Your task to perform on an android device: Search for duracell triple a on amazon.com, select the first entry, and add it to the cart. Image 0: 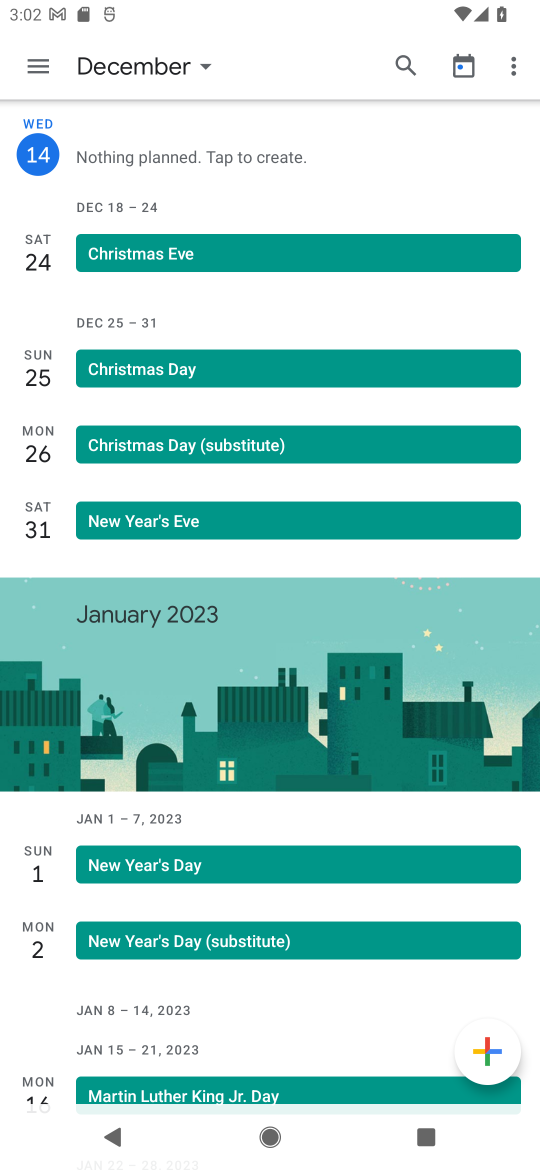
Step 0: press home button
Your task to perform on an android device: Search for duracell triple a on amazon.com, select the first entry, and add it to the cart. Image 1: 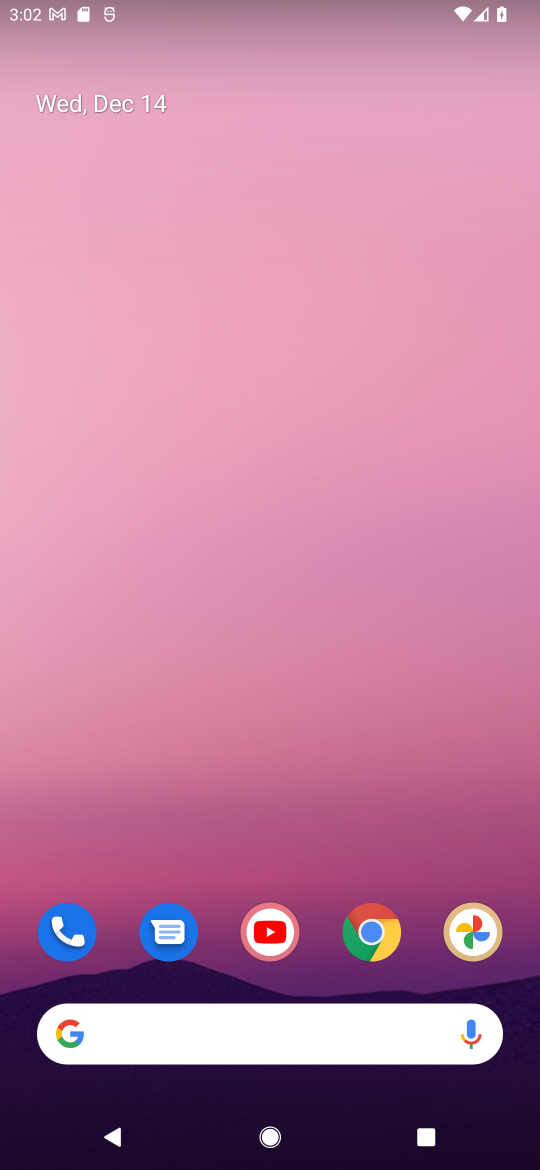
Step 1: click (284, 1029)
Your task to perform on an android device: Search for duracell triple a on amazon.com, select the first entry, and add it to the cart. Image 2: 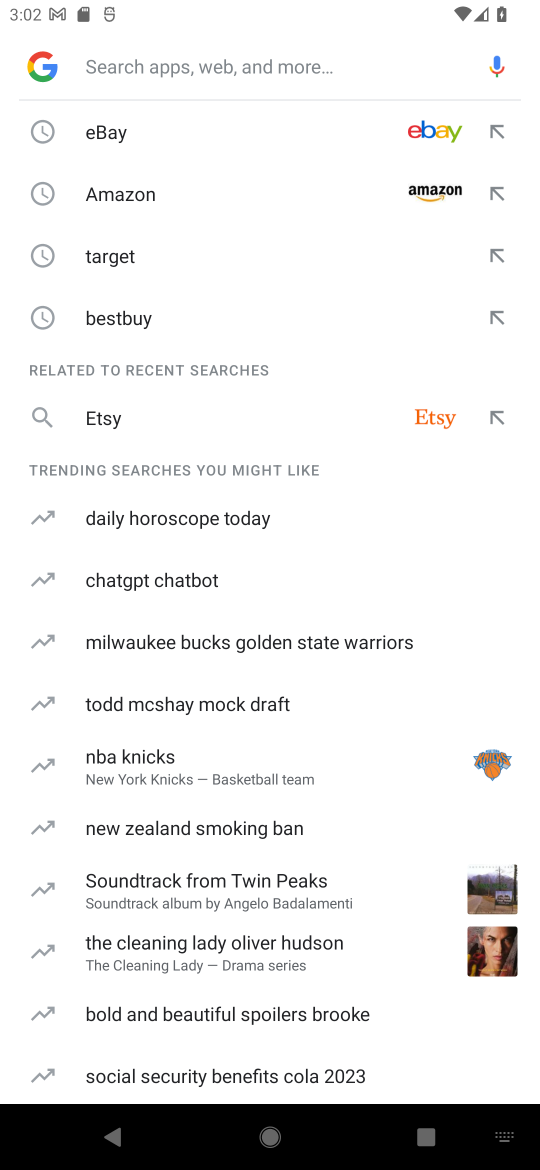
Step 2: click (276, 198)
Your task to perform on an android device: Search for duracell triple a on amazon.com, select the first entry, and add it to the cart. Image 3: 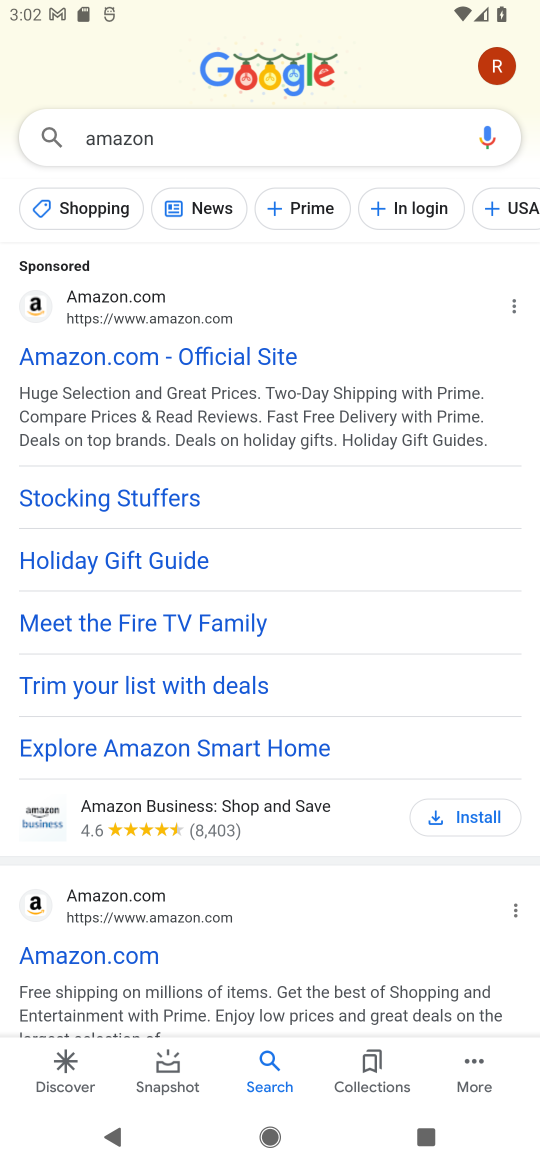
Step 3: click (144, 361)
Your task to perform on an android device: Search for duracell triple a on amazon.com, select the first entry, and add it to the cart. Image 4: 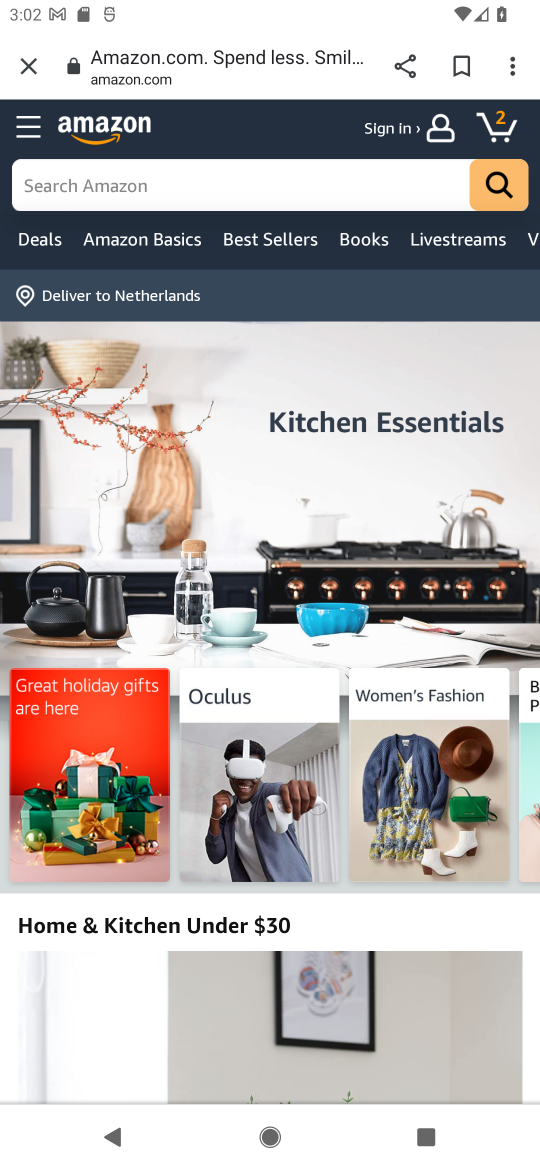
Step 4: click (153, 191)
Your task to perform on an android device: Search for duracell triple a on amazon.com, select the first entry, and add it to the cart. Image 5: 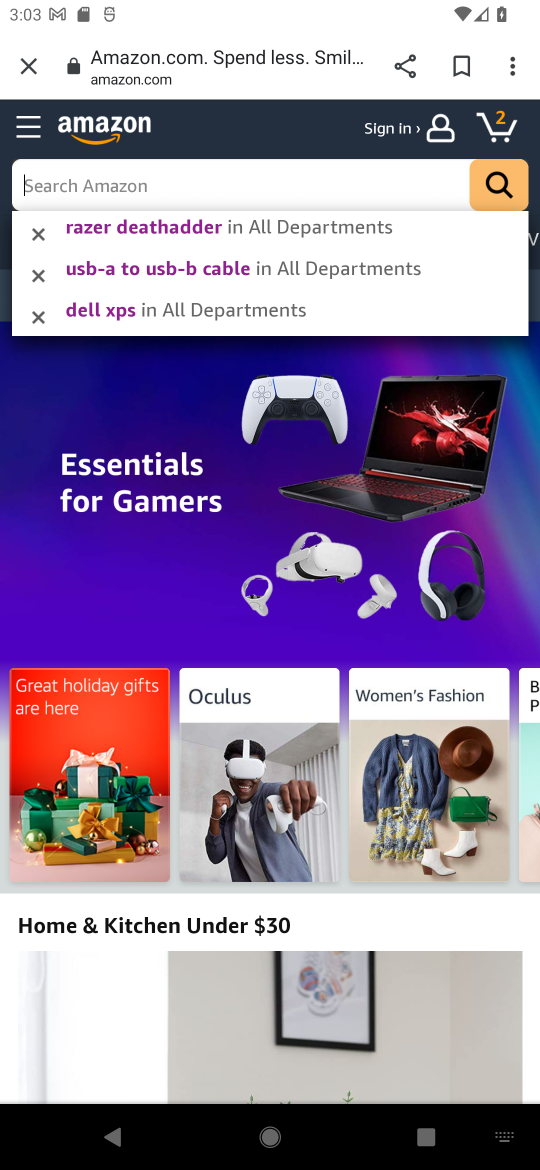
Step 5: type "duracell triple a"
Your task to perform on an android device: Search for duracell triple a on amazon.com, select the first entry, and add it to the cart. Image 6: 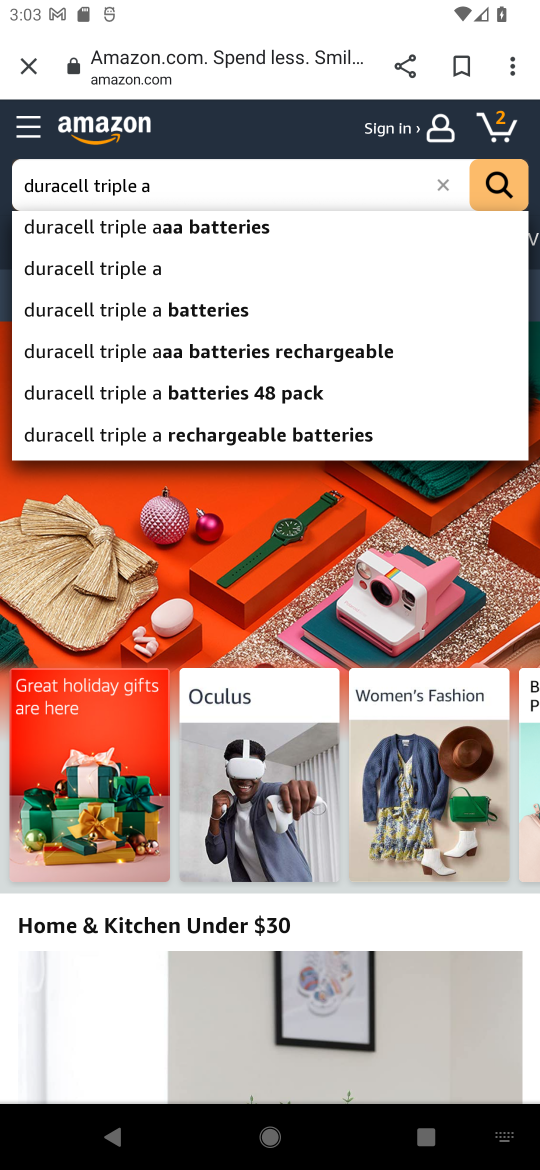
Step 6: click (246, 231)
Your task to perform on an android device: Search for duracell triple a on amazon.com, select the first entry, and add it to the cart. Image 7: 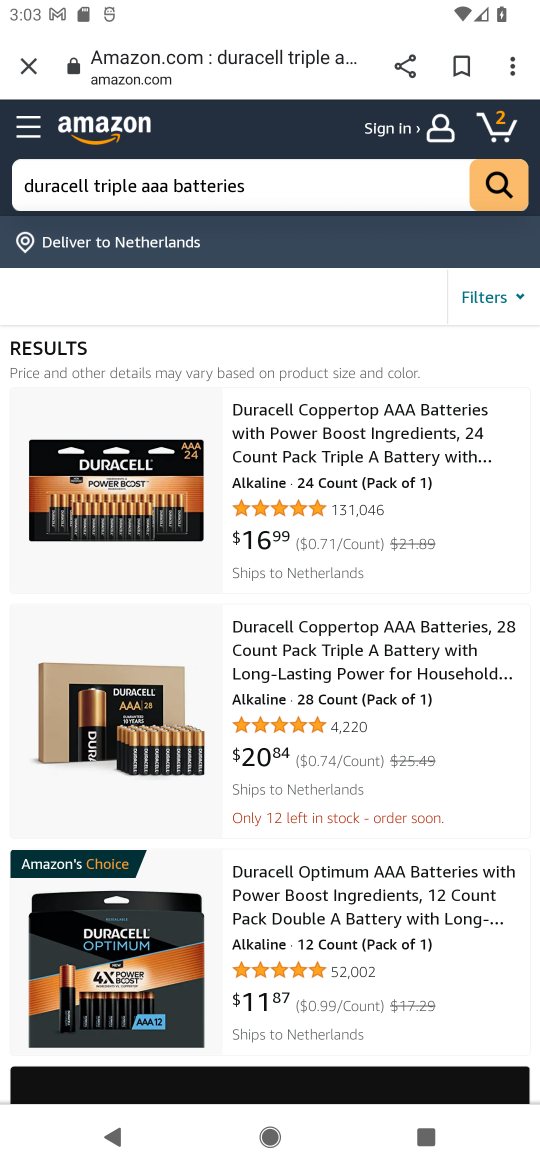
Step 7: click (320, 469)
Your task to perform on an android device: Search for duracell triple a on amazon.com, select the first entry, and add it to the cart. Image 8: 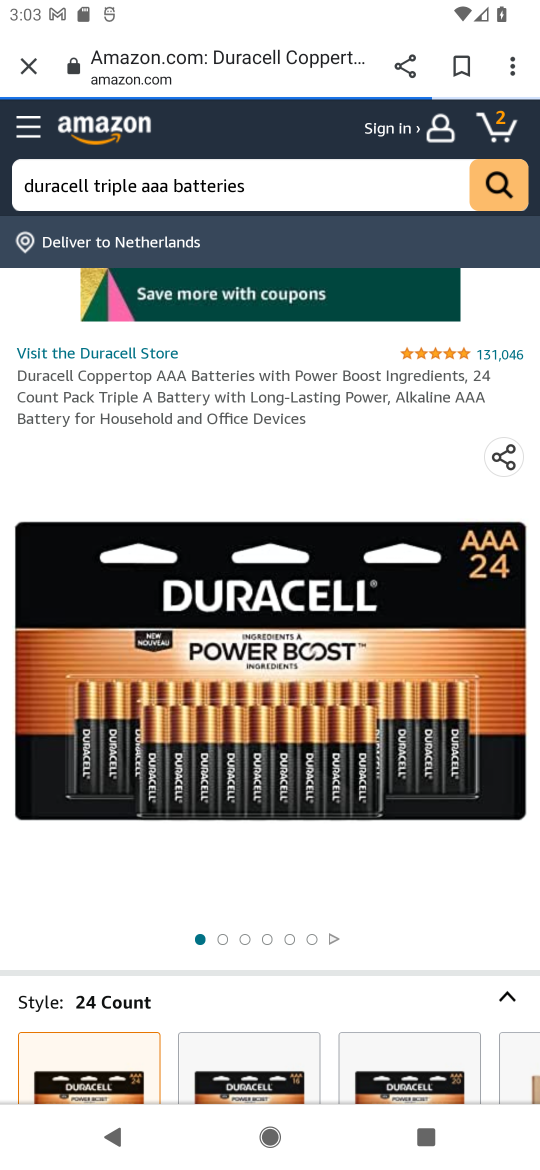
Step 8: drag from (368, 811) to (368, 433)
Your task to perform on an android device: Search for duracell triple a on amazon.com, select the first entry, and add it to the cart. Image 9: 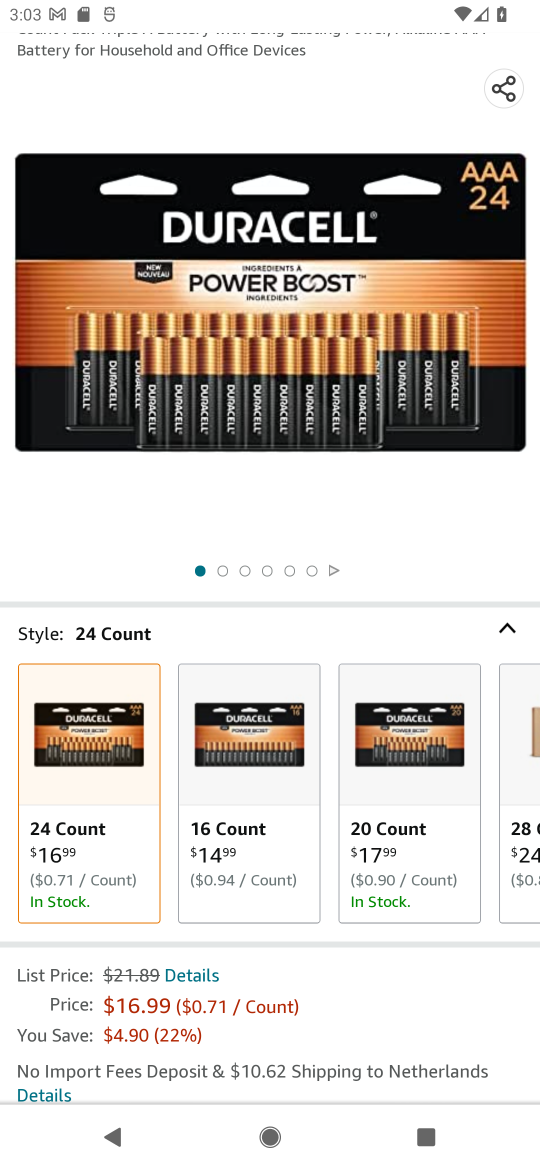
Step 9: drag from (356, 981) to (328, 650)
Your task to perform on an android device: Search for duracell triple a on amazon.com, select the first entry, and add it to the cart. Image 10: 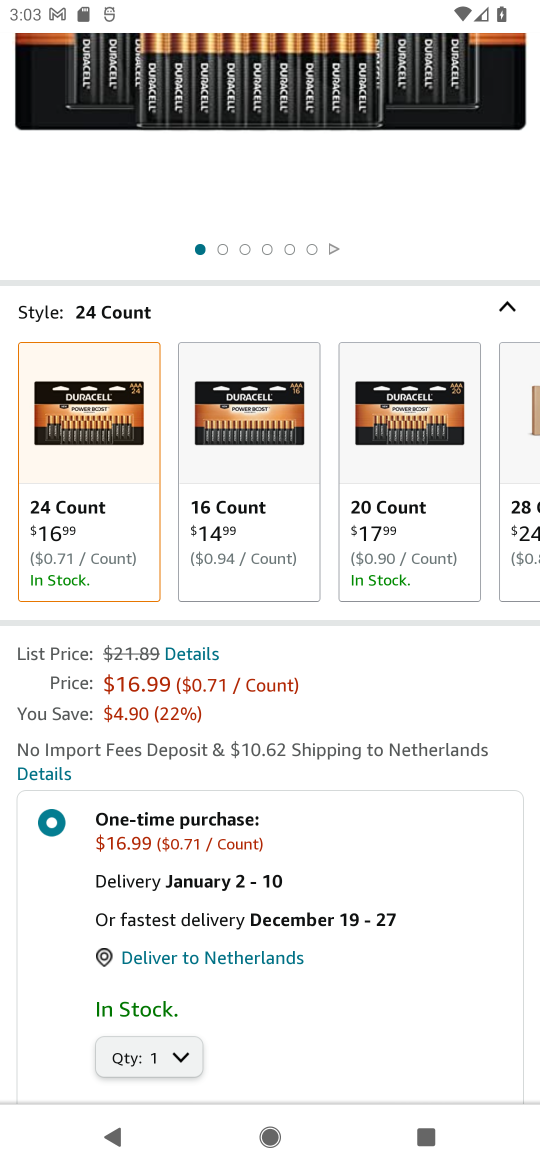
Step 10: drag from (368, 925) to (294, 499)
Your task to perform on an android device: Search for duracell triple a on amazon.com, select the first entry, and add it to the cart. Image 11: 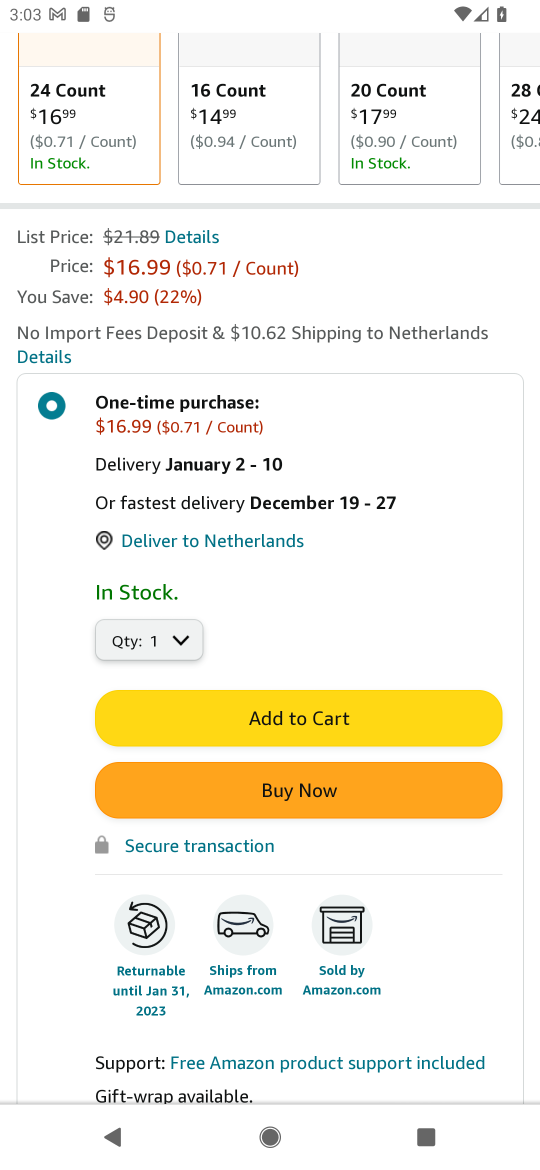
Step 11: click (304, 720)
Your task to perform on an android device: Search for duracell triple a on amazon.com, select the first entry, and add it to the cart. Image 12: 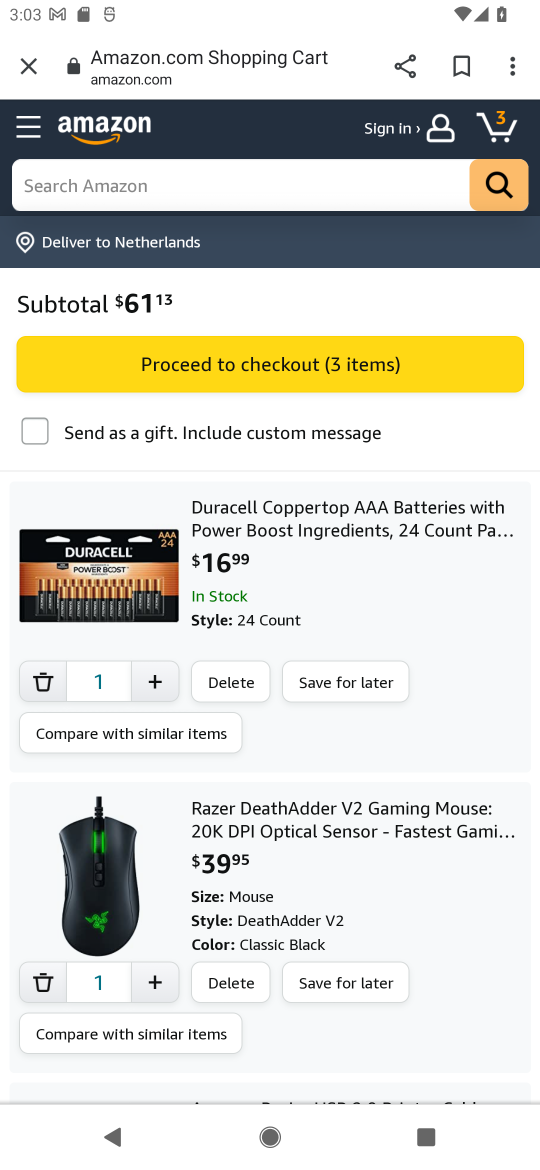
Step 12: task complete